Your task to perform on an android device: Turn on the flashlight Image 0: 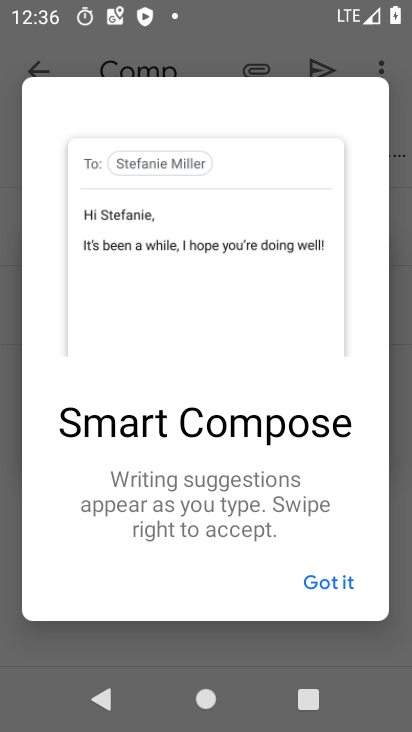
Step 0: click (398, 606)
Your task to perform on an android device: Turn on the flashlight Image 1: 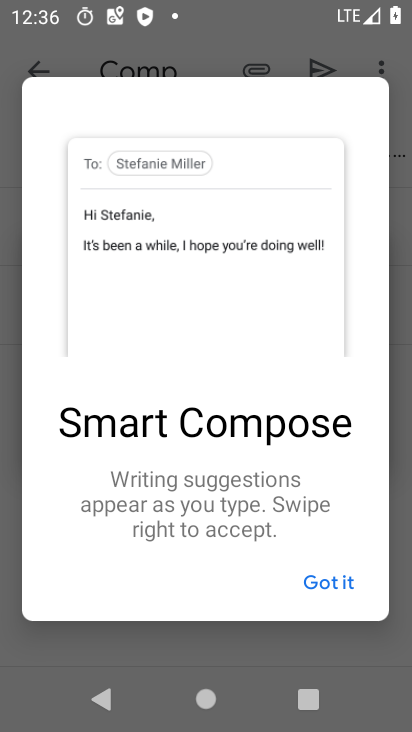
Step 1: press home button
Your task to perform on an android device: Turn on the flashlight Image 2: 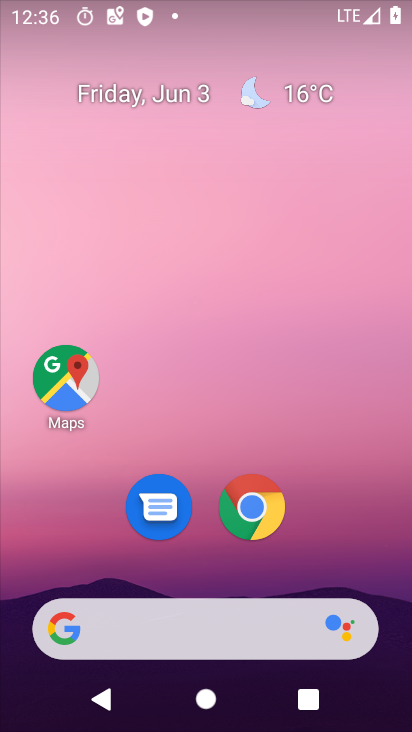
Step 2: drag from (388, 634) to (299, 48)
Your task to perform on an android device: Turn on the flashlight Image 3: 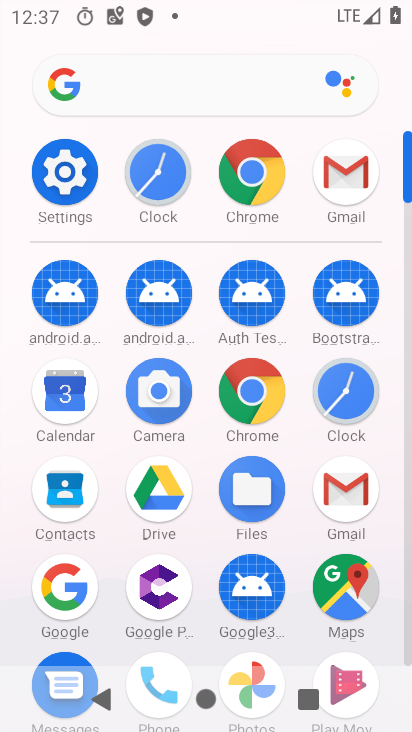
Step 3: click (62, 170)
Your task to perform on an android device: Turn on the flashlight Image 4: 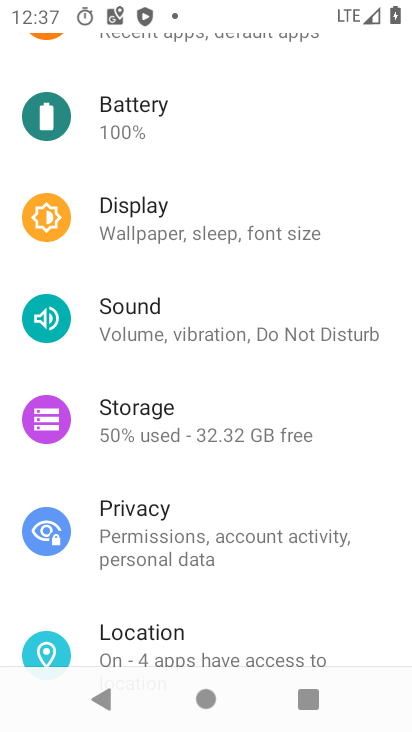
Step 4: task complete